Your task to perform on an android device: Show me the alarms in the clock app Image 0: 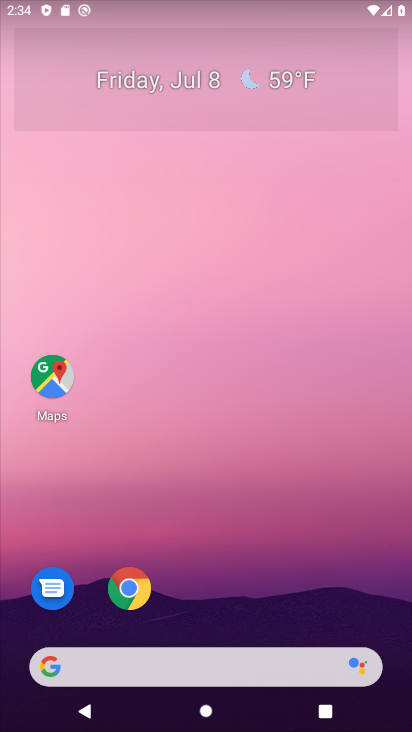
Step 0: drag from (218, 568) to (210, 128)
Your task to perform on an android device: Show me the alarms in the clock app Image 1: 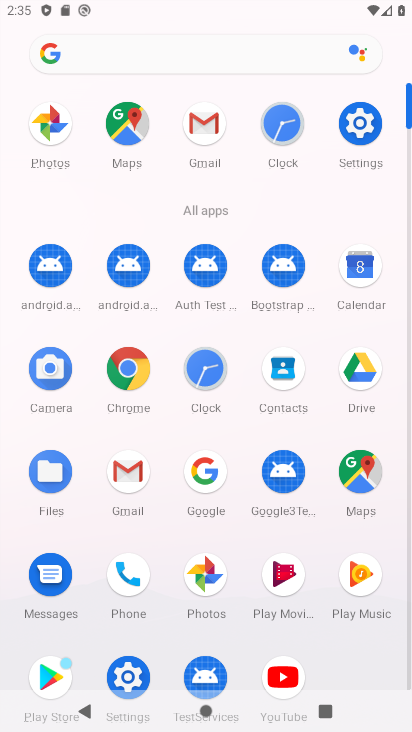
Step 1: click (205, 371)
Your task to perform on an android device: Show me the alarms in the clock app Image 2: 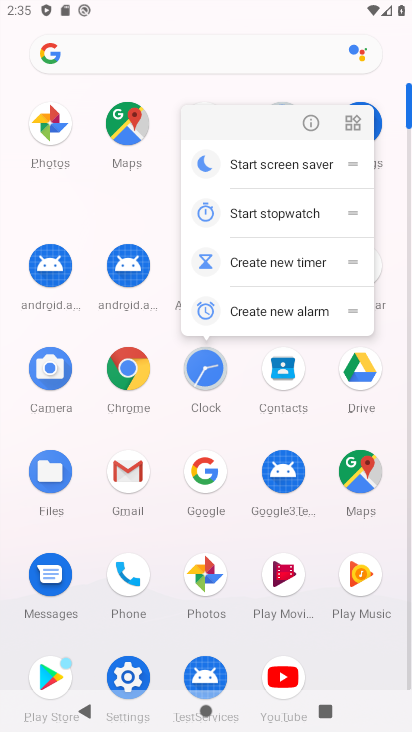
Step 2: click (211, 389)
Your task to perform on an android device: Show me the alarms in the clock app Image 3: 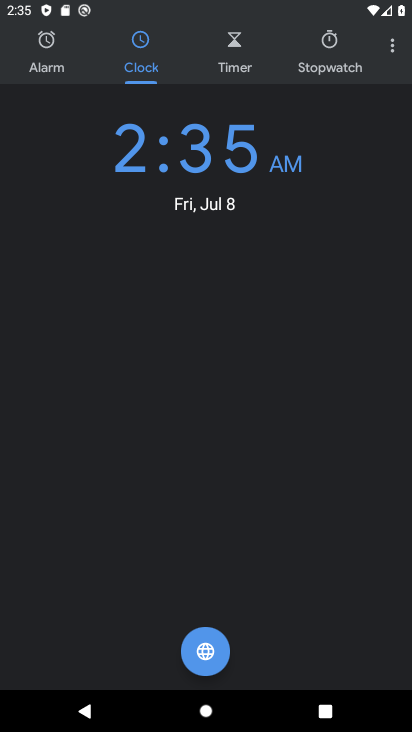
Step 3: click (55, 67)
Your task to perform on an android device: Show me the alarms in the clock app Image 4: 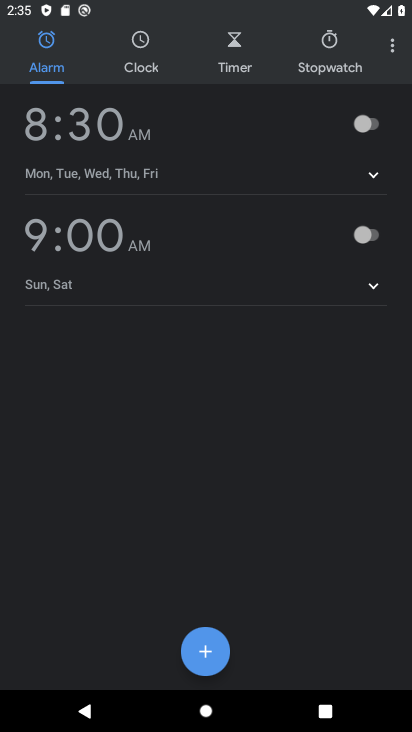
Step 4: task complete